Your task to perform on an android device: add a contact in the contacts app Image 0: 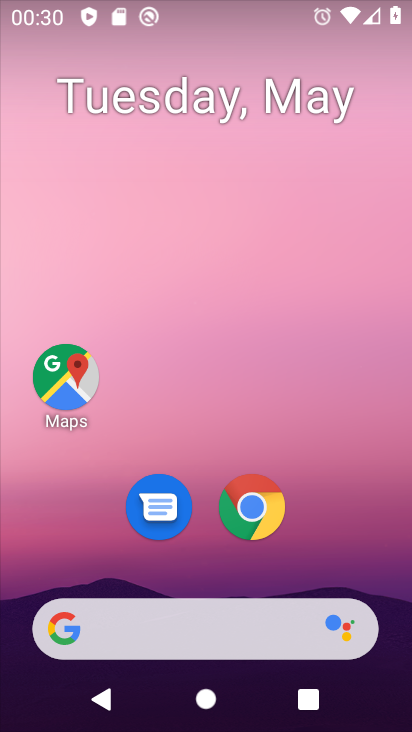
Step 0: drag from (214, 577) to (224, 234)
Your task to perform on an android device: add a contact in the contacts app Image 1: 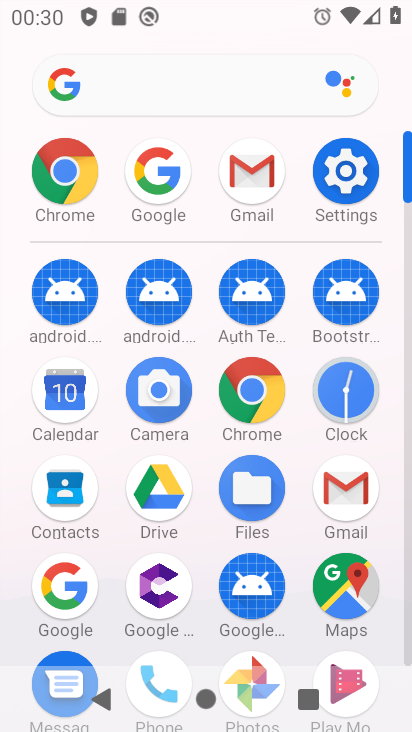
Step 1: click (65, 505)
Your task to perform on an android device: add a contact in the contacts app Image 2: 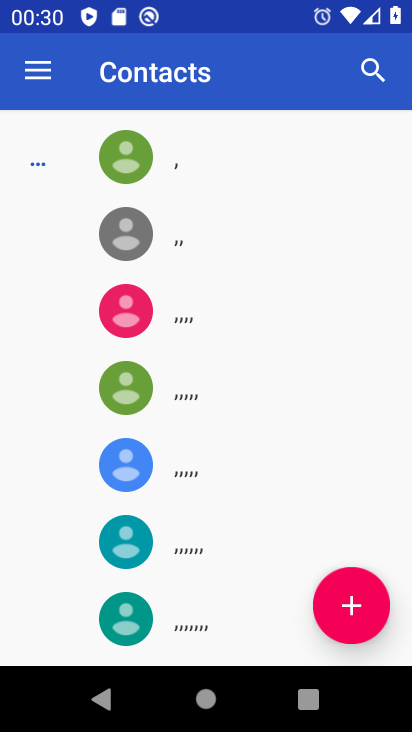
Step 2: click (361, 597)
Your task to perform on an android device: add a contact in the contacts app Image 3: 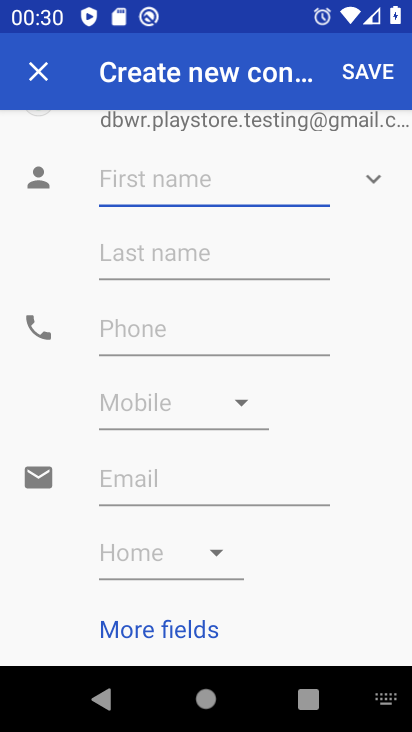
Step 3: type "priya"
Your task to perform on an android device: add a contact in the contacts app Image 4: 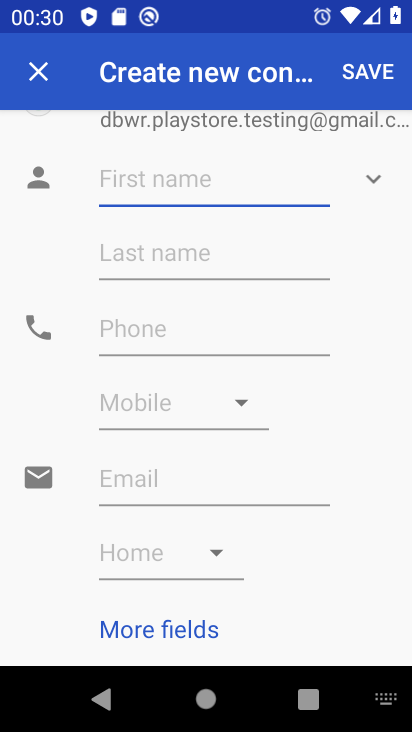
Step 4: click (204, 265)
Your task to perform on an android device: add a contact in the contacts app Image 5: 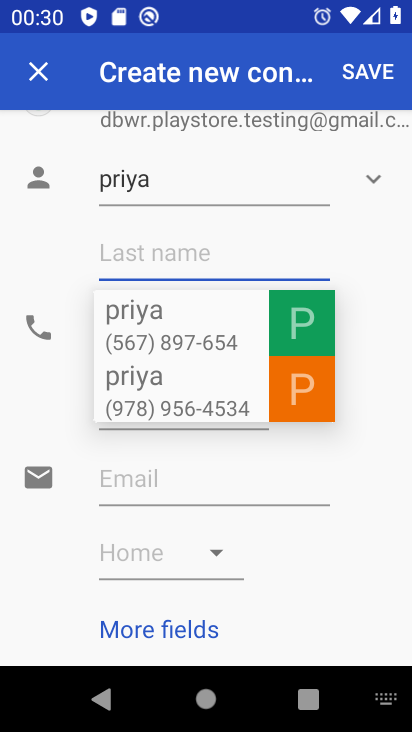
Step 5: type "tiwari"
Your task to perform on an android device: add a contact in the contacts app Image 6: 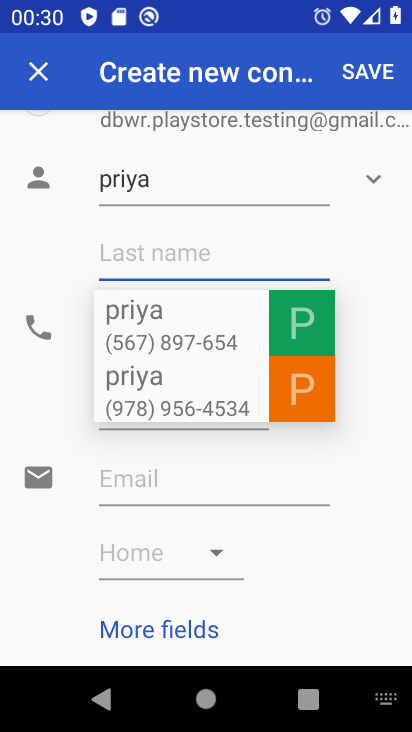
Step 6: click (180, 248)
Your task to perform on an android device: add a contact in the contacts app Image 7: 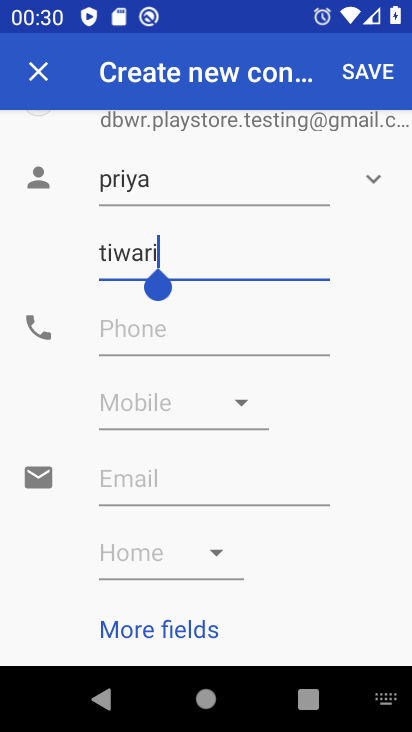
Step 7: click (125, 337)
Your task to perform on an android device: add a contact in the contacts app Image 8: 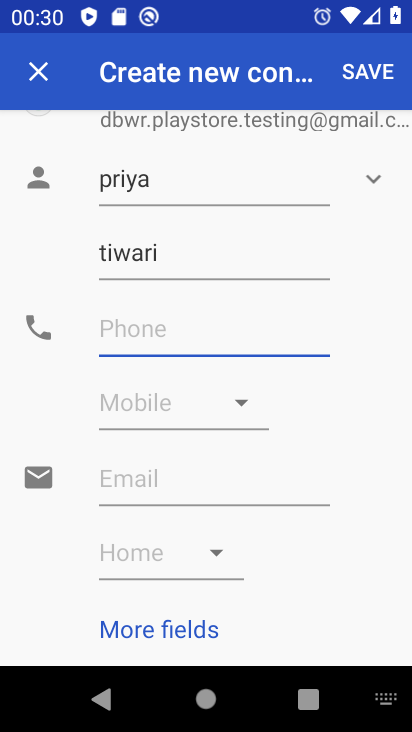
Step 8: type "7878987868"
Your task to perform on an android device: add a contact in the contacts app Image 9: 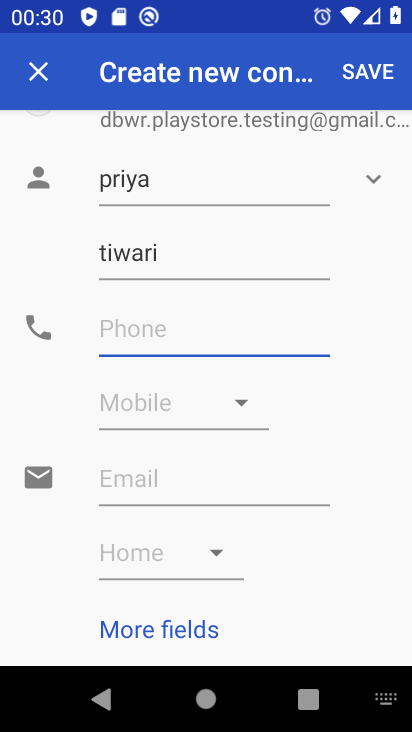
Step 9: click (155, 386)
Your task to perform on an android device: add a contact in the contacts app Image 10: 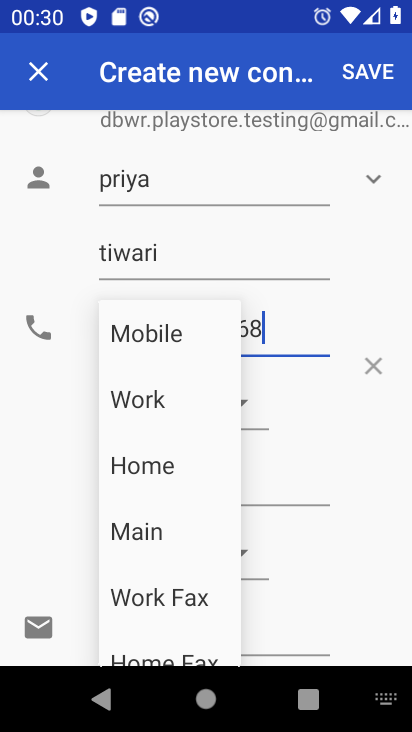
Step 10: click (144, 343)
Your task to perform on an android device: add a contact in the contacts app Image 11: 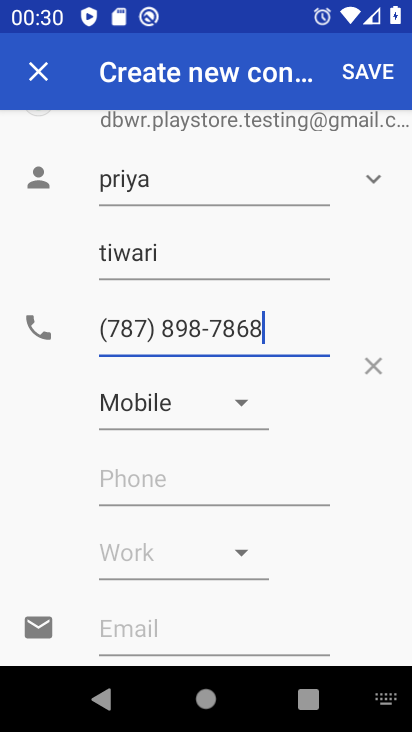
Step 11: click (379, 81)
Your task to perform on an android device: add a contact in the contacts app Image 12: 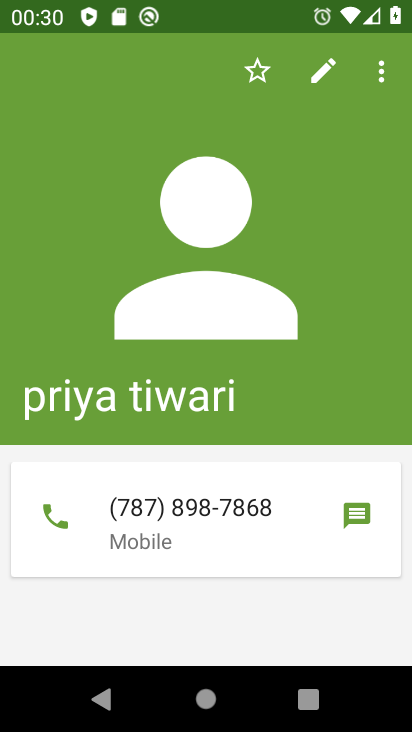
Step 12: task complete